Your task to perform on an android device: turn pop-ups on in chrome Image 0: 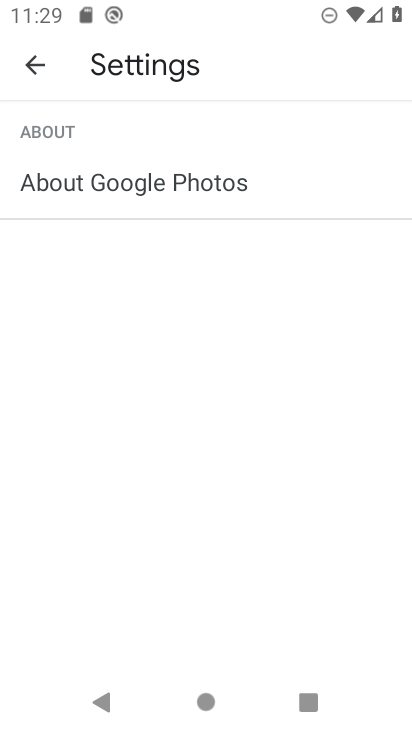
Step 0: press home button
Your task to perform on an android device: turn pop-ups on in chrome Image 1: 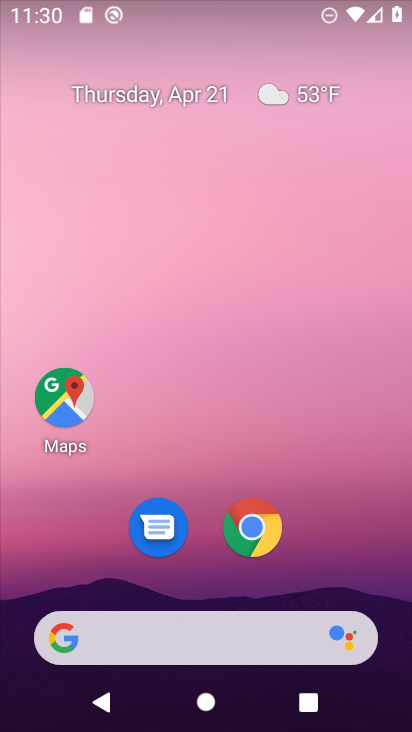
Step 1: drag from (357, 560) to (354, 161)
Your task to perform on an android device: turn pop-ups on in chrome Image 2: 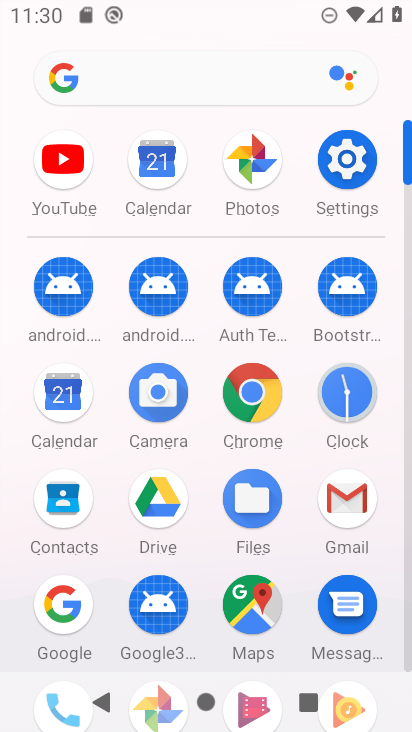
Step 2: click (255, 397)
Your task to perform on an android device: turn pop-ups on in chrome Image 3: 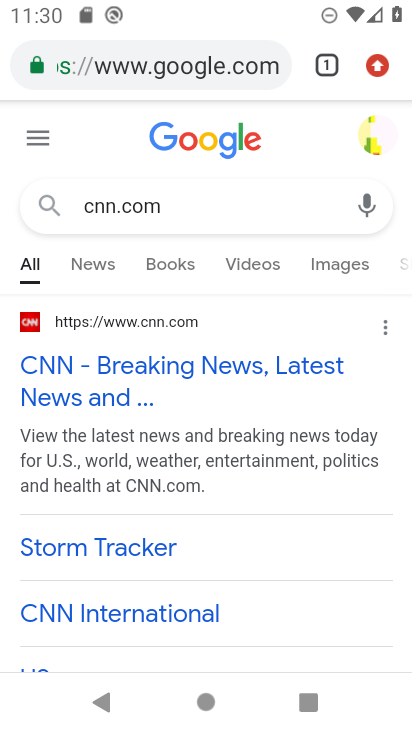
Step 3: click (381, 69)
Your task to perform on an android device: turn pop-ups on in chrome Image 4: 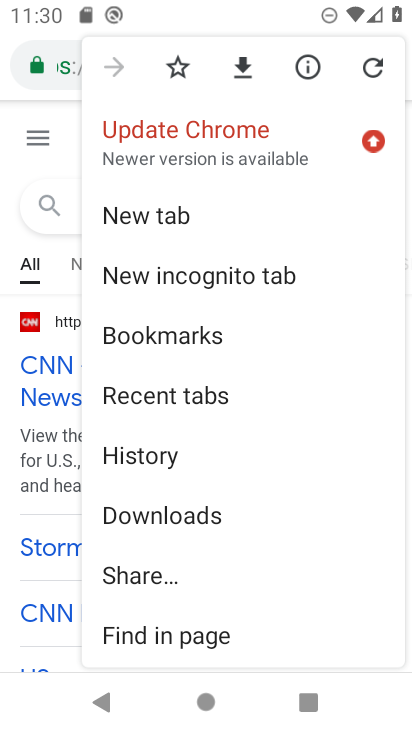
Step 4: drag from (324, 564) to (323, 416)
Your task to perform on an android device: turn pop-ups on in chrome Image 5: 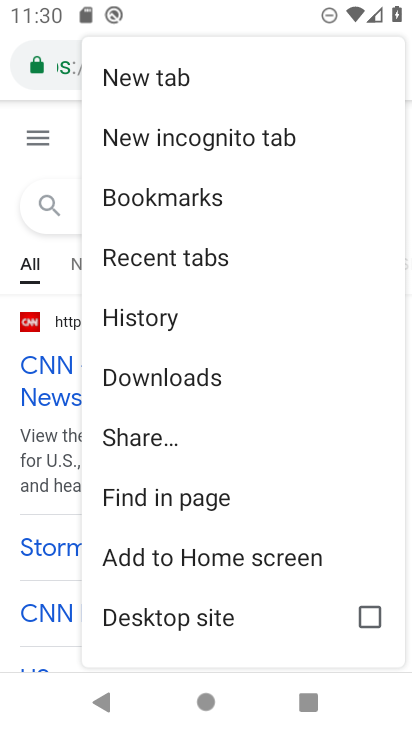
Step 5: drag from (298, 599) to (307, 425)
Your task to perform on an android device: turn pop-ups on in chrome Image 6: 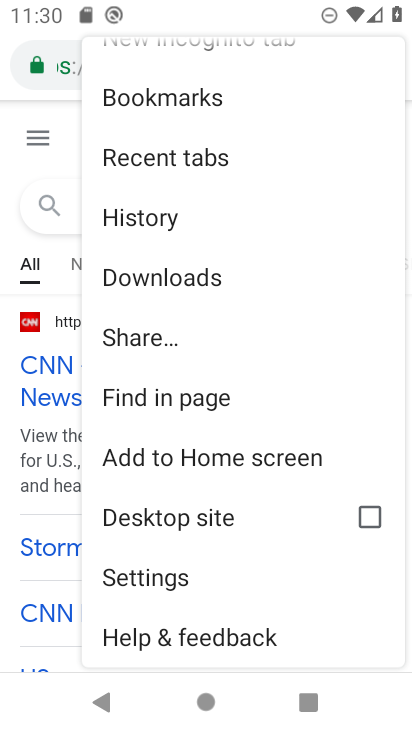
Step 6: click (181, 575)
Your task to perform on an android device: turn pop-ups on in chrome Image 7: 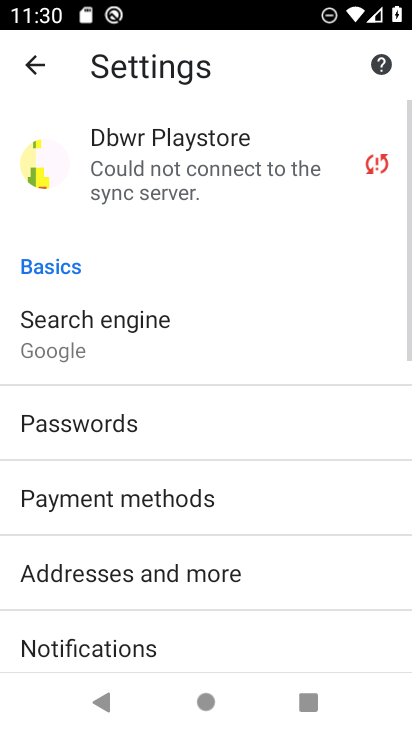
Step 7: drag from (299, 572) to (306, 440)
Your task to perform on an android device: turn pop-ups on in chrome Image 8: 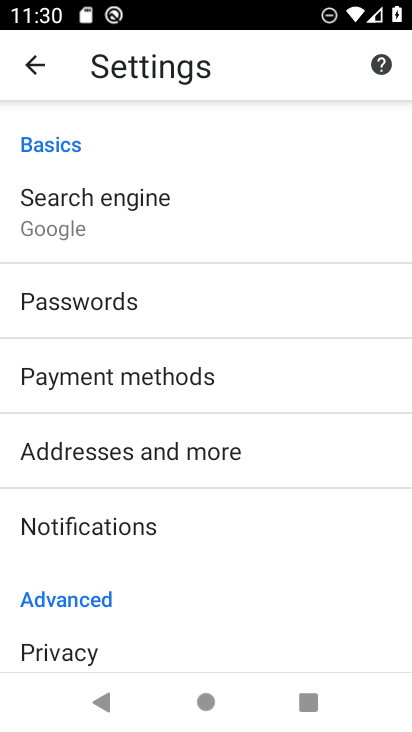
Step 8: drag from (287, 592) to (303, 444)
Your task to perform on an android device: turn pop-ups on in chrome Image 9: 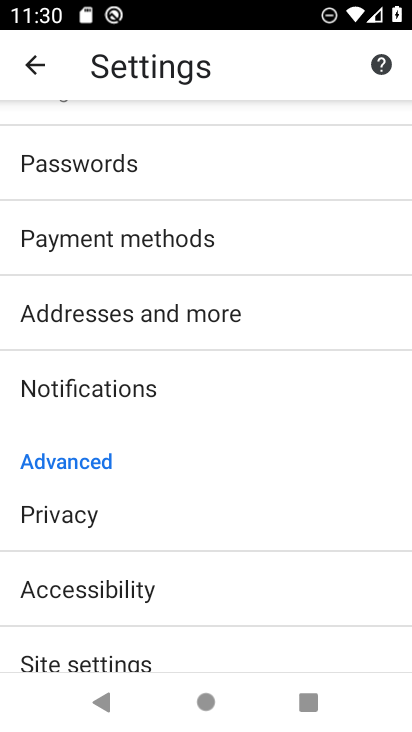
Step 9: drag from (292, 581) to (309, 451)
Your task to perform on an android device: turn pop-ups on in chrome Image 10: 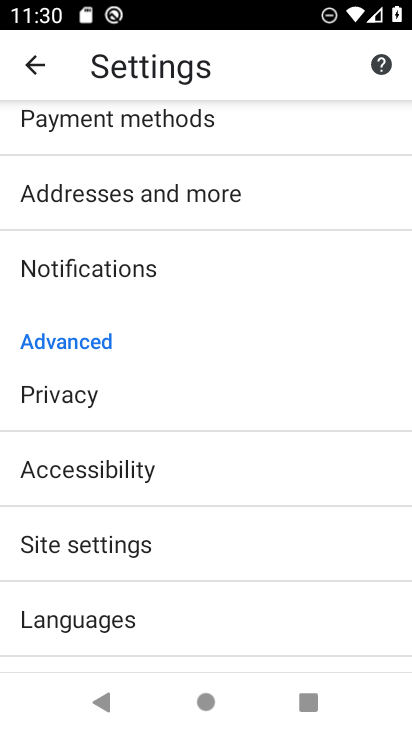
Step 10: drag from (309, 590) to (320, 483)
Your task to perform on an android device: turn pop-ups on in chrome Image 11: 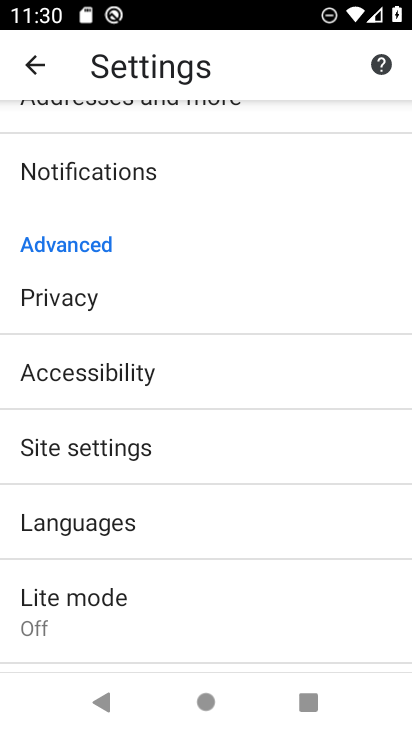
Step 11: drag from (313, 606) to (328, 438)
Your task to perform on an android device: turn pop-ups on in chrome Image 12: 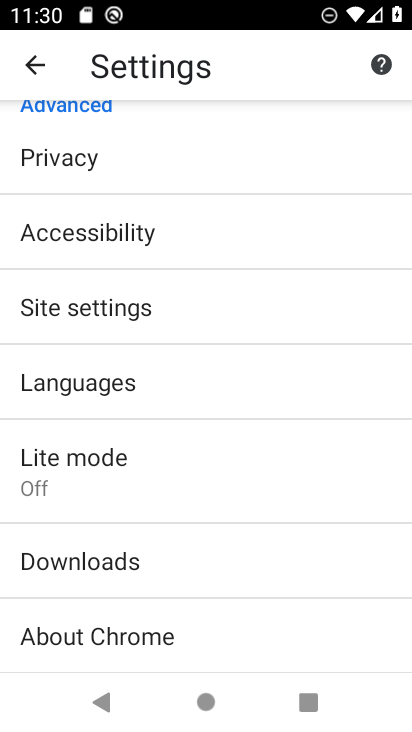
Step 12: drag from (290, 562) to (298, 468)
Your task to perform on an android device: turn pop-ups on in chrome Image 13: 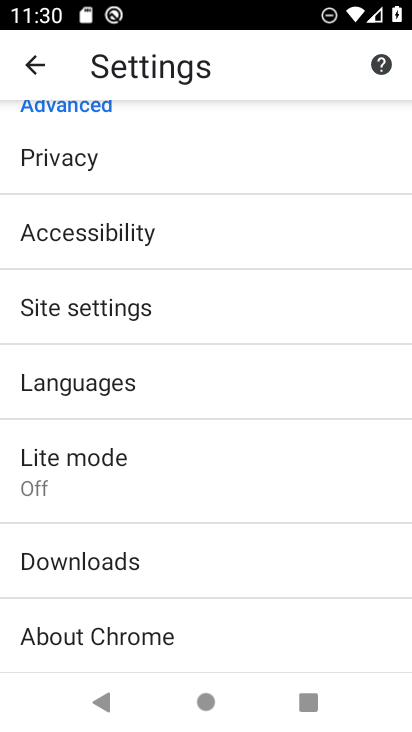
Step 13: click (215, 305)
Your task to perform on an android device: turn pop-ups on in chrome Image 14: 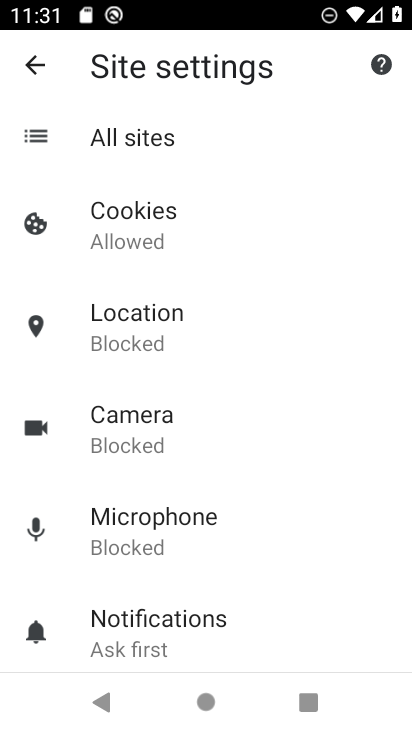
Step 14: drag from (315, 554) to (324, 449)
Your task to perform on an android device: turn pop-ups on in chrome Image 15: 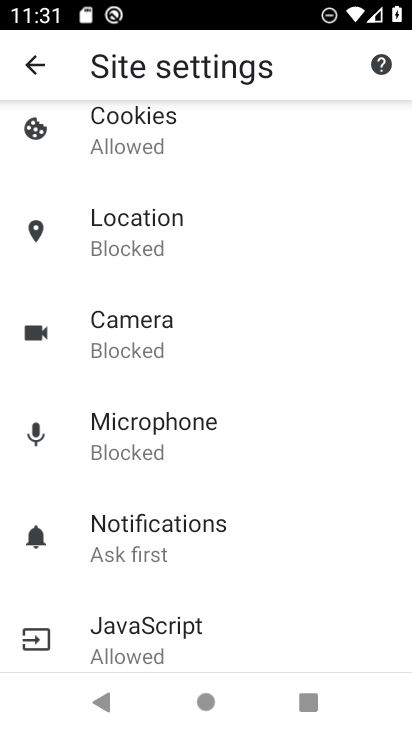
Step 15: drag from (327, 573) to (328, 446)
Your task to perform on an android device: turn pop-ups on in chrome Image 16: 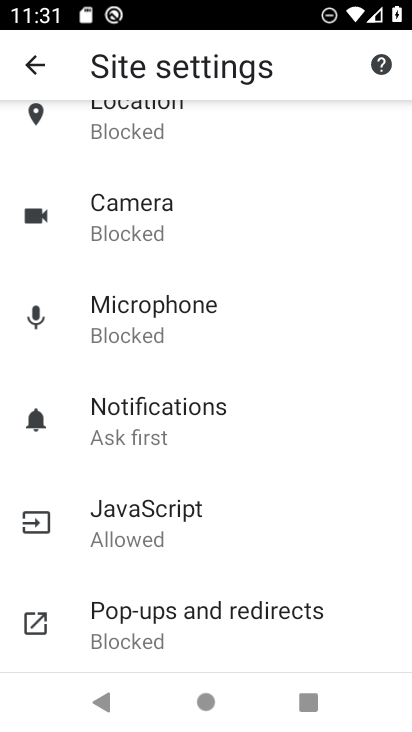
Step 16: drag from (349, 595) to (355, 468)
Your task to perform on an android device: turn pop-ups on in chrome Image 17: 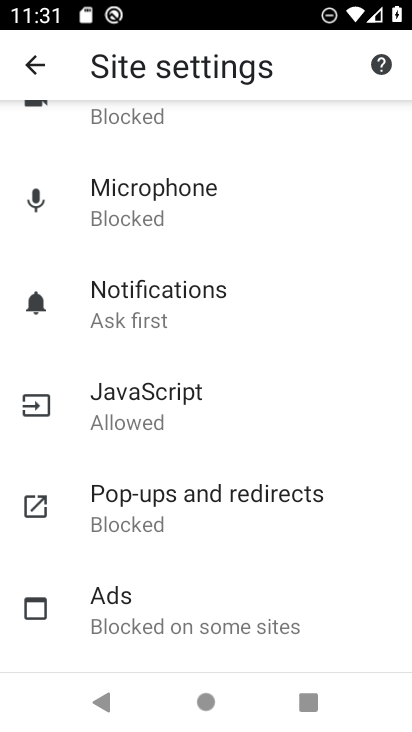
Step 17: drag from (346, 575) to (358, 459)
Your task to perform on an android device: turn pop-ups on in chrome Image 18: 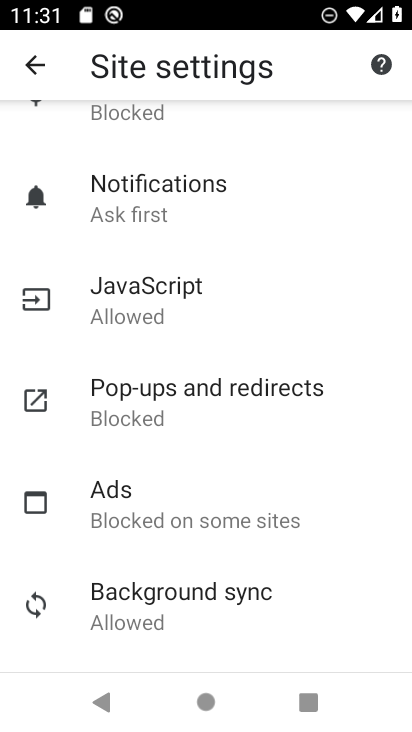
Step 18: click (284, 394)
Your task to perform on an android device: turn pop-ups on in chrome Image 19: 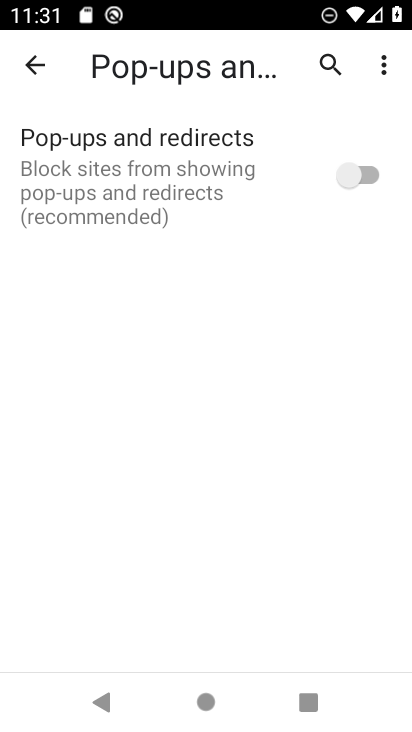
Step 19: click (352, 165)
Your task to perform on an android device: turn pop-ups on in chrome Image 20: 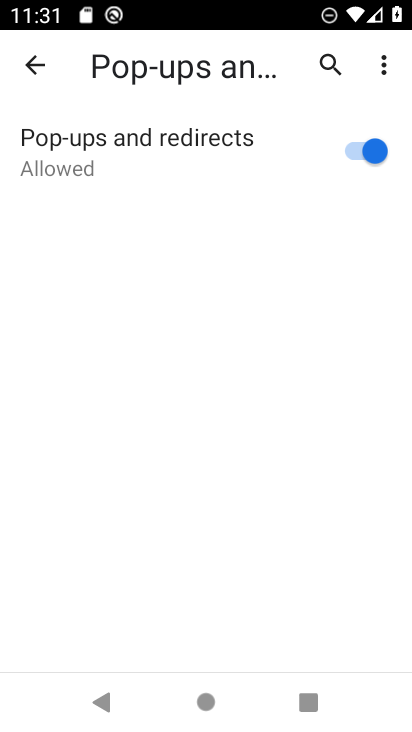
Step 20: task complete